Your task to perform on an android device: Go to Maps Image 0: 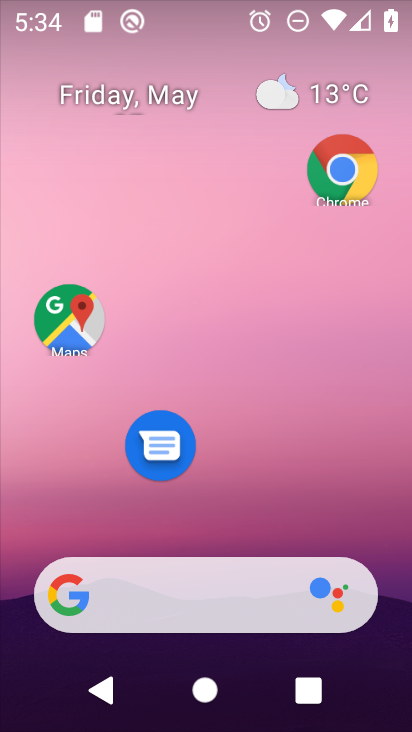
Step 0: click (68, 322)
Your task to perform on an android device: Go to Maps Image 1: 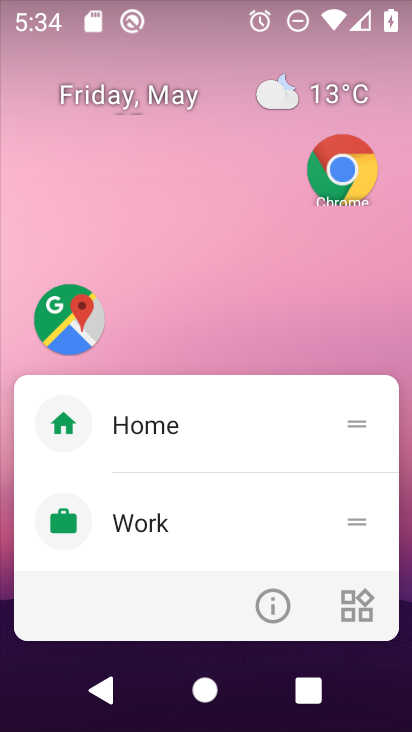
Step 1: click (67, 308)
Your task to perform on an android device: Go to Maps Image 2: 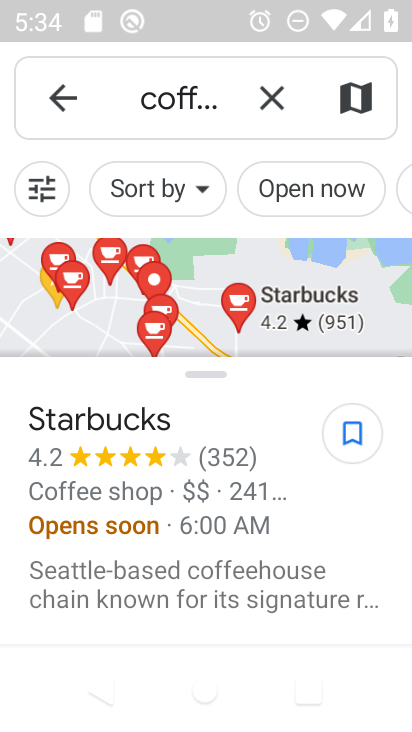
Step 2: task complete